Your task to perform on an android device: What's on my calendar tomorrow? Image 0: 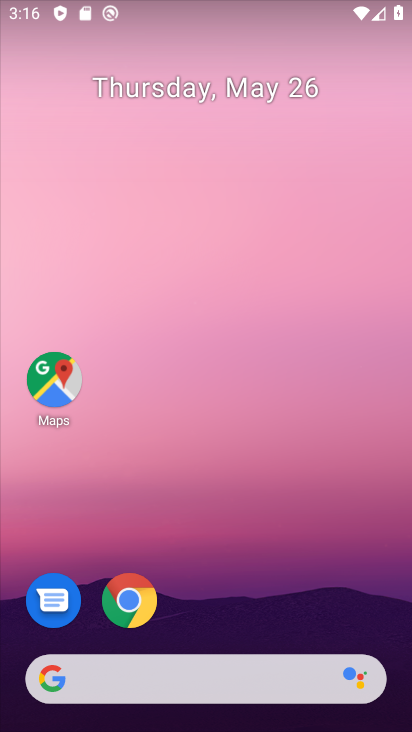
Step 0: drag from (242, 588) to (323, 158)
Your task to perform on an android device: What's on my calendar tomorrow? Image 1: 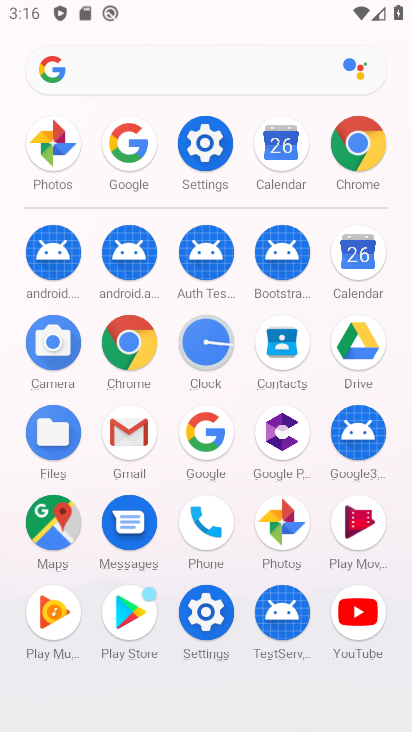
Step 1: click (278, 170)
Your task to perform on an android device: What's on my calendar tomorrow? Image 2: 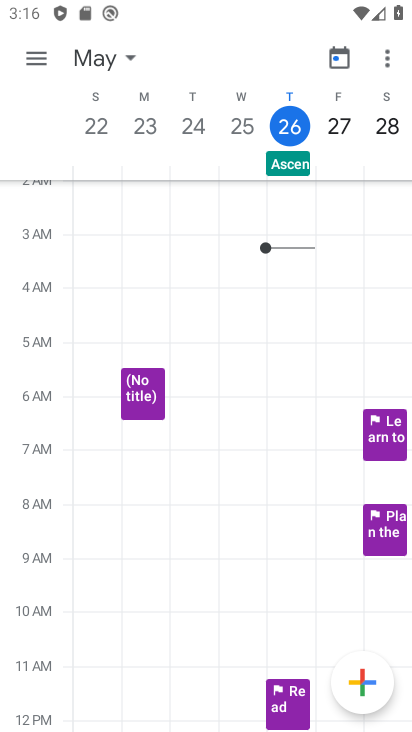
Step 2: click (398, 121)
Your task to perform on an android device: What's on my calendar tomorrow? Image 3: 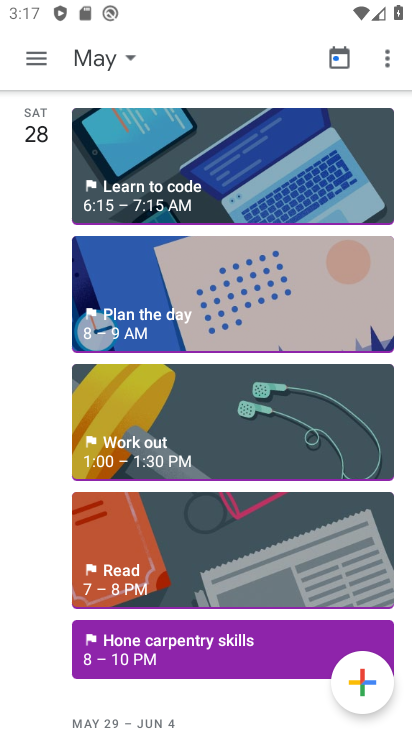
Step 3: task complete